Your task to perform on an android device: open chrome privacy settings Image 0: 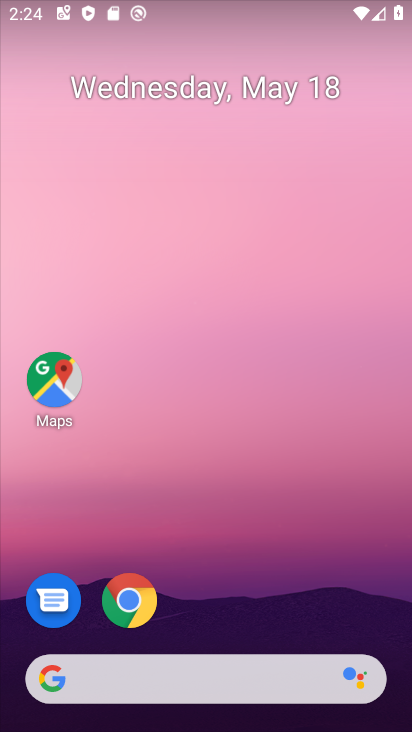
Step 0: click (122, 596)
Your task to perform on an android device: open chrome privacy settings Image 1: 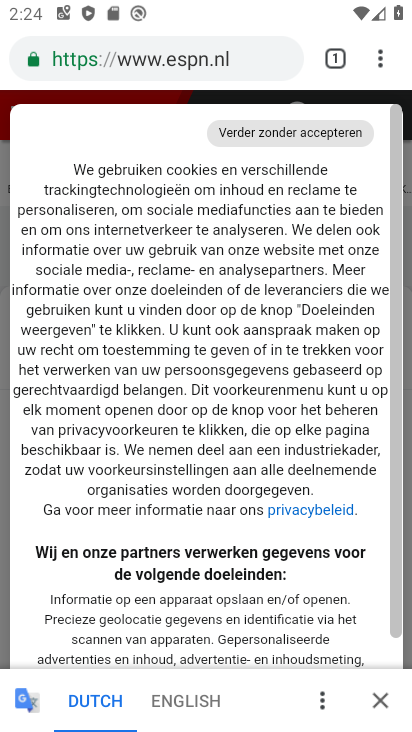
Step 1: click (384, 58)
Your task to perform on an android device: open chrome privacy settings Image 2: 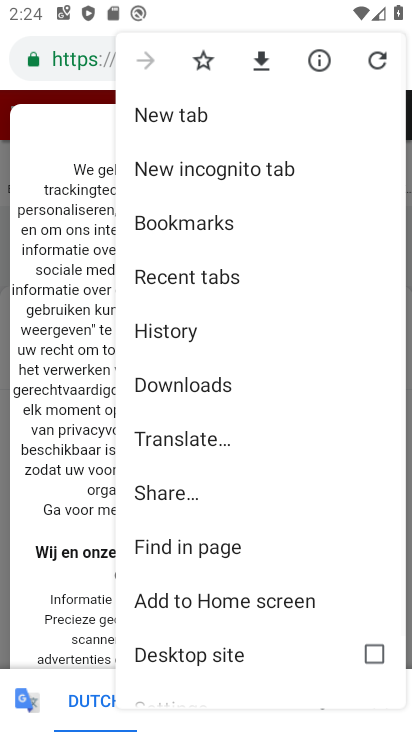
Step 2: drag from (193, 634) to (236, 370)
Your task to perform on an android device: open chrome privacy settings Image 3: 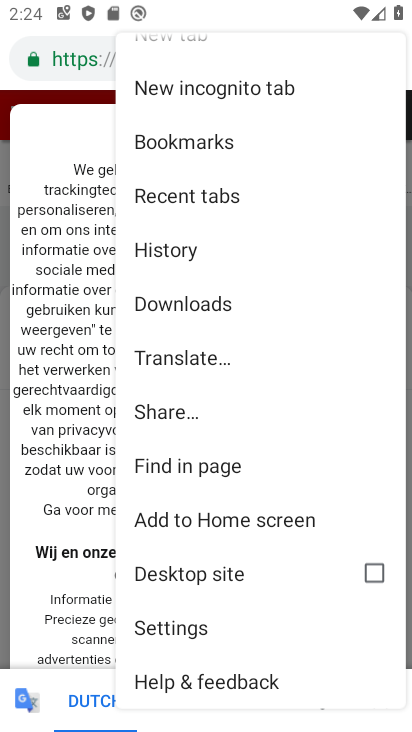
Step 3: click (172, 629)
Your task to perform on an android device: open chrome privacy settings Image 4: 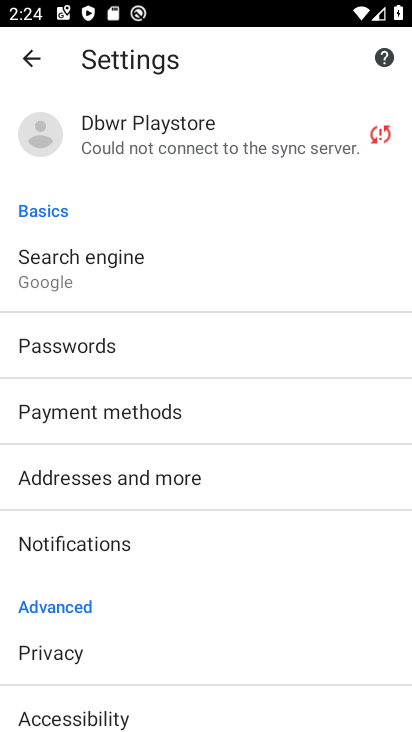
Step 4: click (56, 666)
Your task to perform on an android device: open chrome privacy settings Image 5: 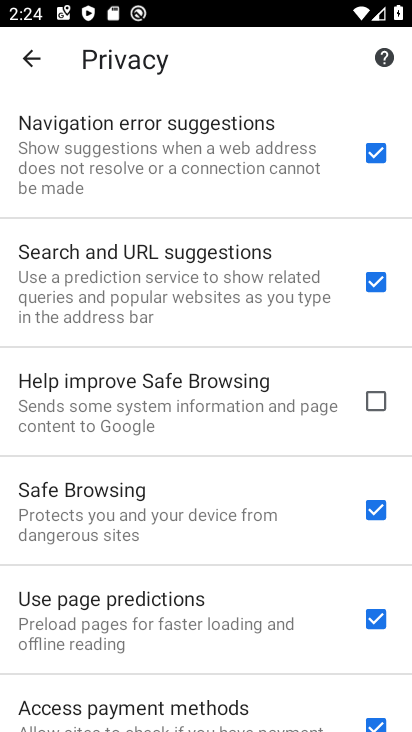
Step 5: task complete